Your task to perform on an android device: Open Google Chrome and open the bookmarks view Image 0: 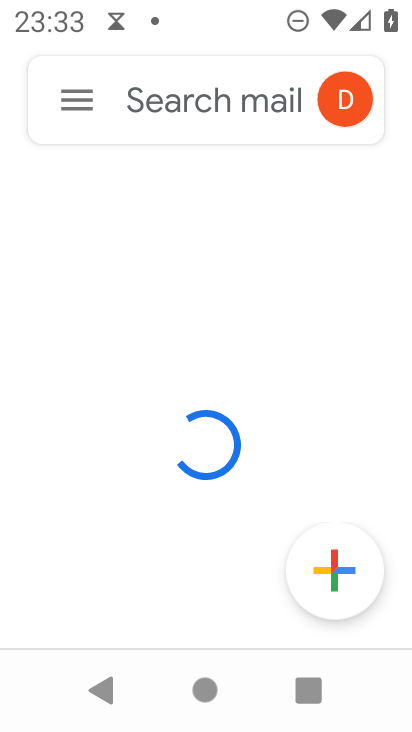
Step 0: press home button
Your task to perform on an android device: Open Google Chrome and open the bookmarks view Image 1: 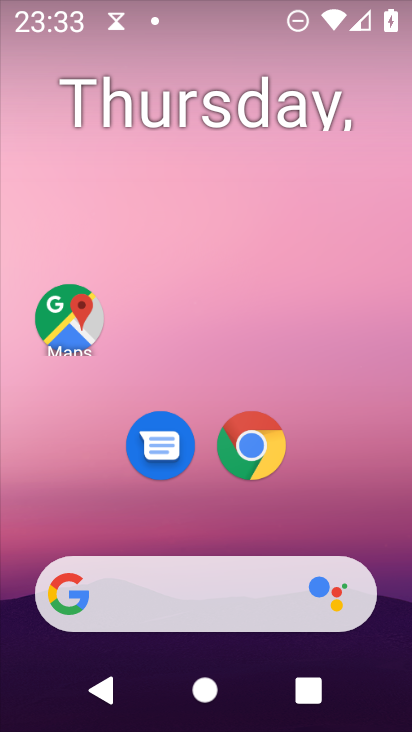
Step 1: drag from (222, 714) to (224, 158)
Your task to perform on an android device: Open Google Chrome and open the bookmarks view Image 2: 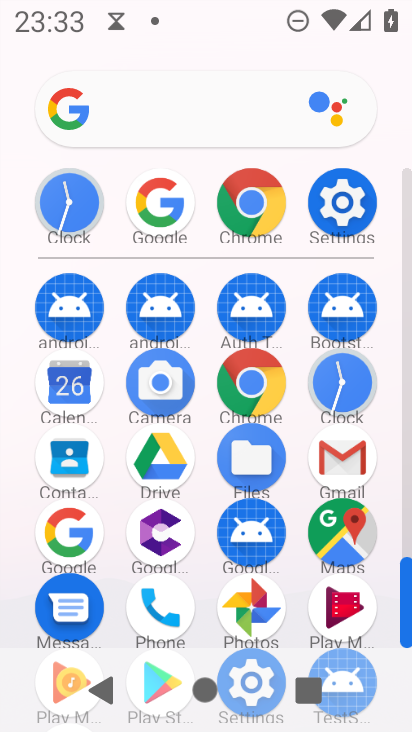
Step 2: click (252, 379)
Your task to perform on an android device: Open Google Chrome and open the bookmarks view Image 3: 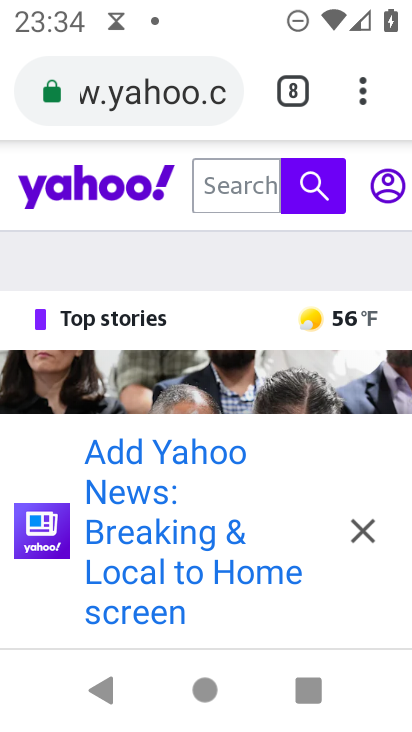
Step 3: click (364, 98)
Your task to perform on an android device: Open Google Chrome and open the bookmarks view Image 4: 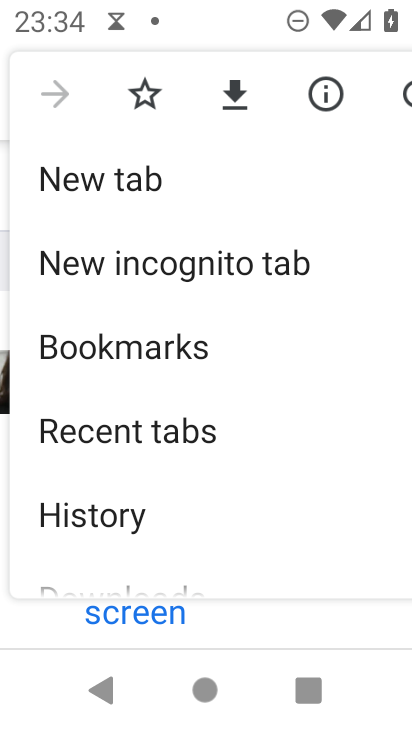
Step 4: click (134, 348)
Your task to perform on an android device: Open Google Chrome and open the bookmarks view Image 5: 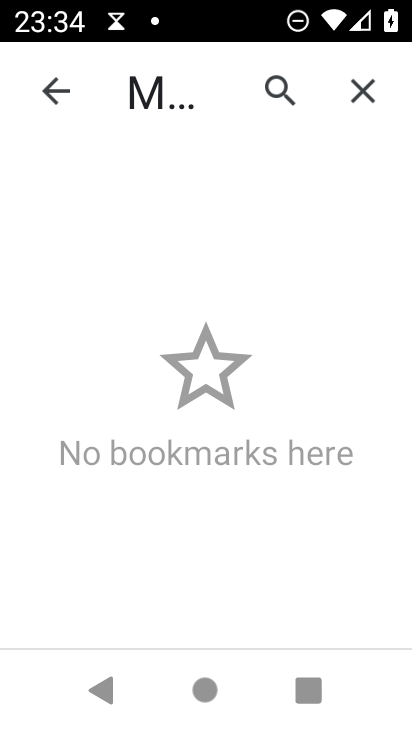
Step 5: task complete